Your task to perform on an android device: Open Google Image 0: 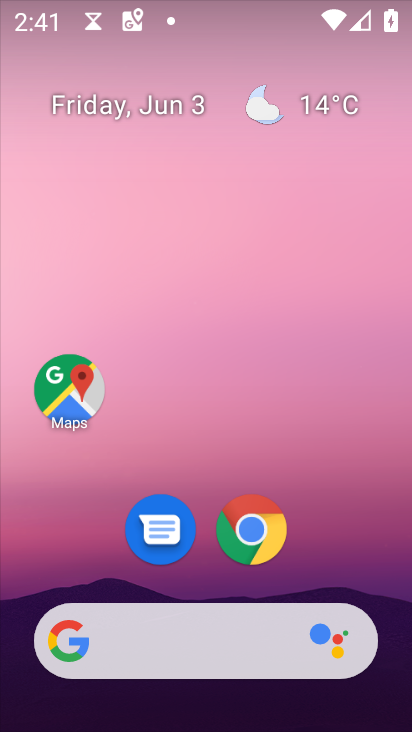
Step 0: drag from (202, 706) to (206, 171)
Your task to perform on an android device: Open Google Image 1: 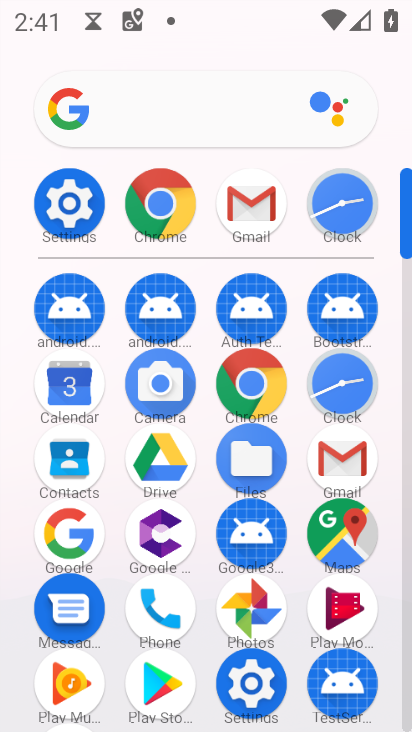
Step 1: click (72, 554)
Your task to perform on an android device: Open Google Image 2: 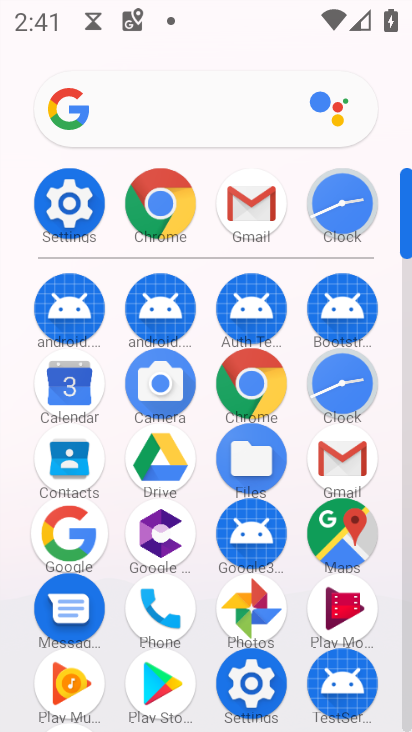
Step 2: click (66, 547)
Your task to perform on an android device: Open Google Image 3: 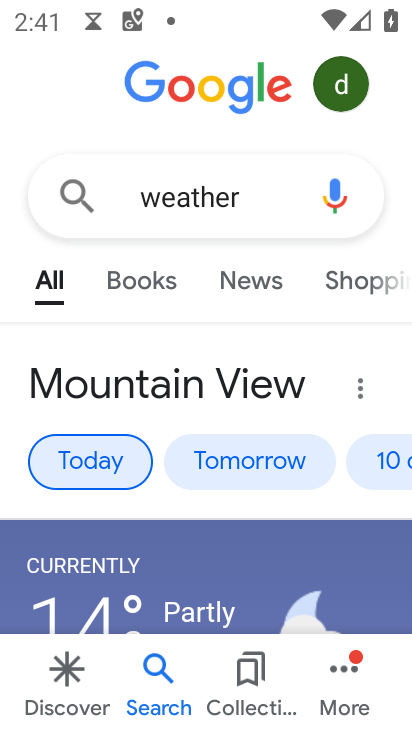
Step 3: click (51, 535)
Your task to perform on an android device: Open Google Image 4: 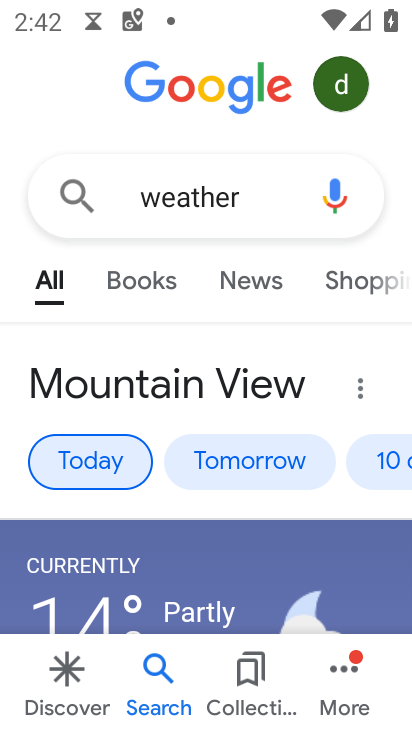
Step 4: task complete